Your task to perform on an android device: Open settings Image 0: 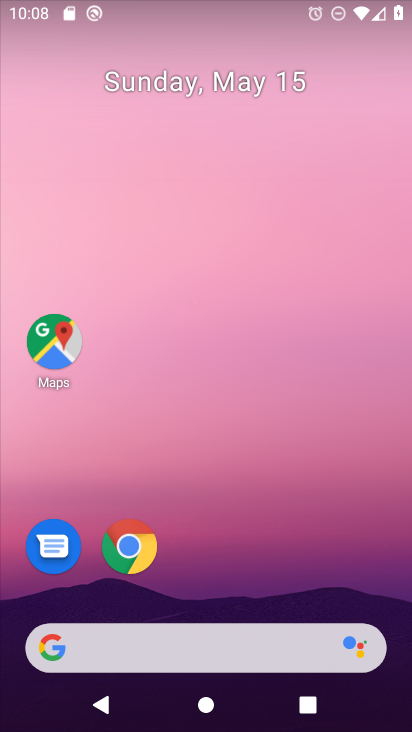
Step 0: drag from (235, 320) to (192, 60)
Your task to perform on an android device: Open settings Image 1: 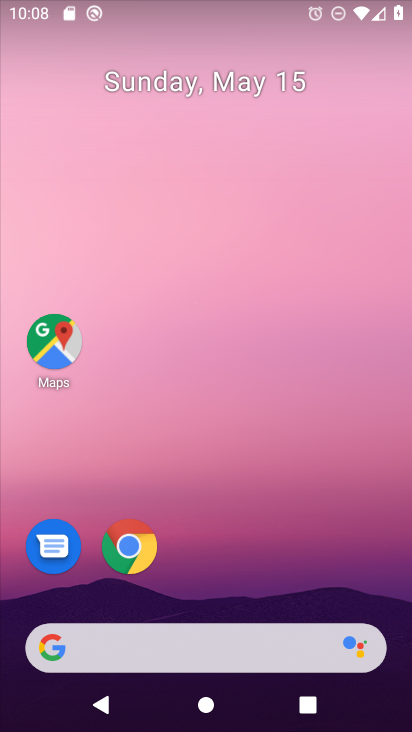
Step 1: drag from (223, 456) to (220, 160)
Your task to perform on an android device: Open settings Image 2: 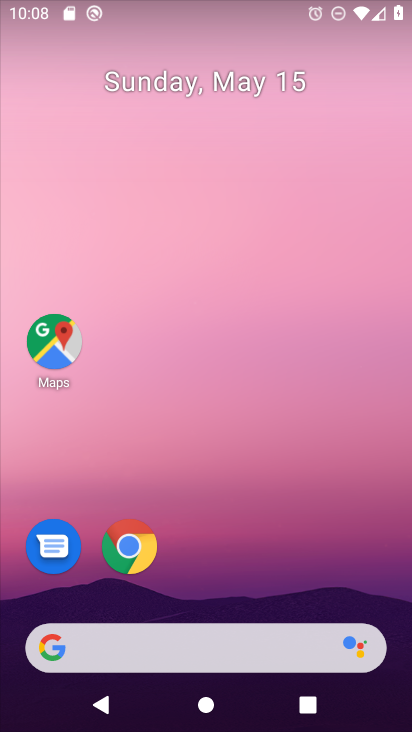
Step 2: drag from (235, 530) to (241, 211)
Your task to perform on an android device: Open settings Image 3: 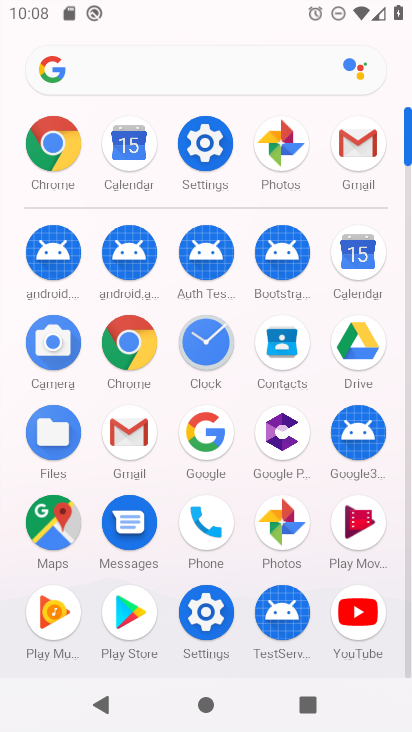
Step 3: click (207, 139)
Your task to perform on an android device: Open settings Image 4: 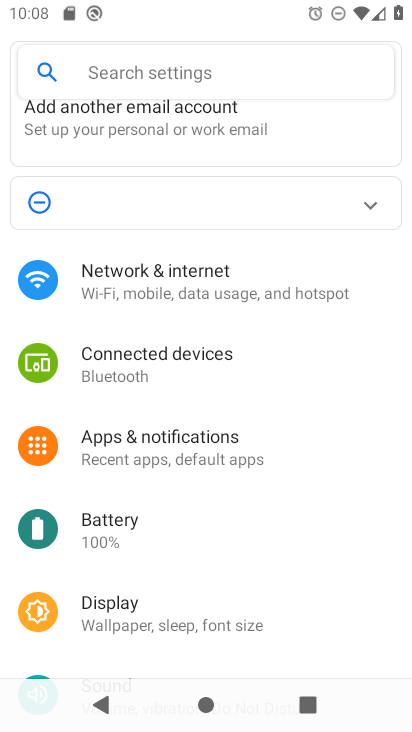
Step 4: task complete